Your task to perform on an android device: delete browsing data in the chrome app Image 0: 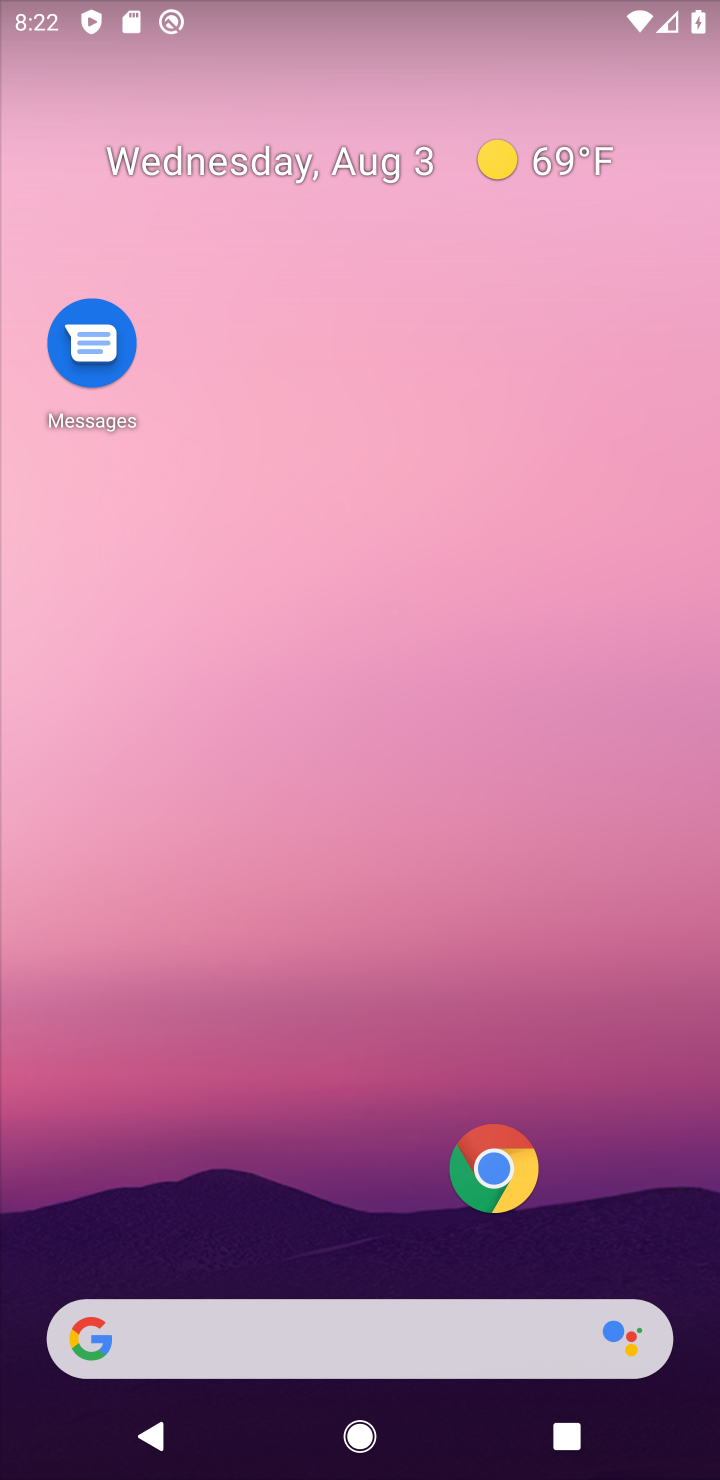
Step 0: drag from (415, 1271) to (395, 33)
Your task to perform on an android device: delete browsing data in the chrome app Image 1: 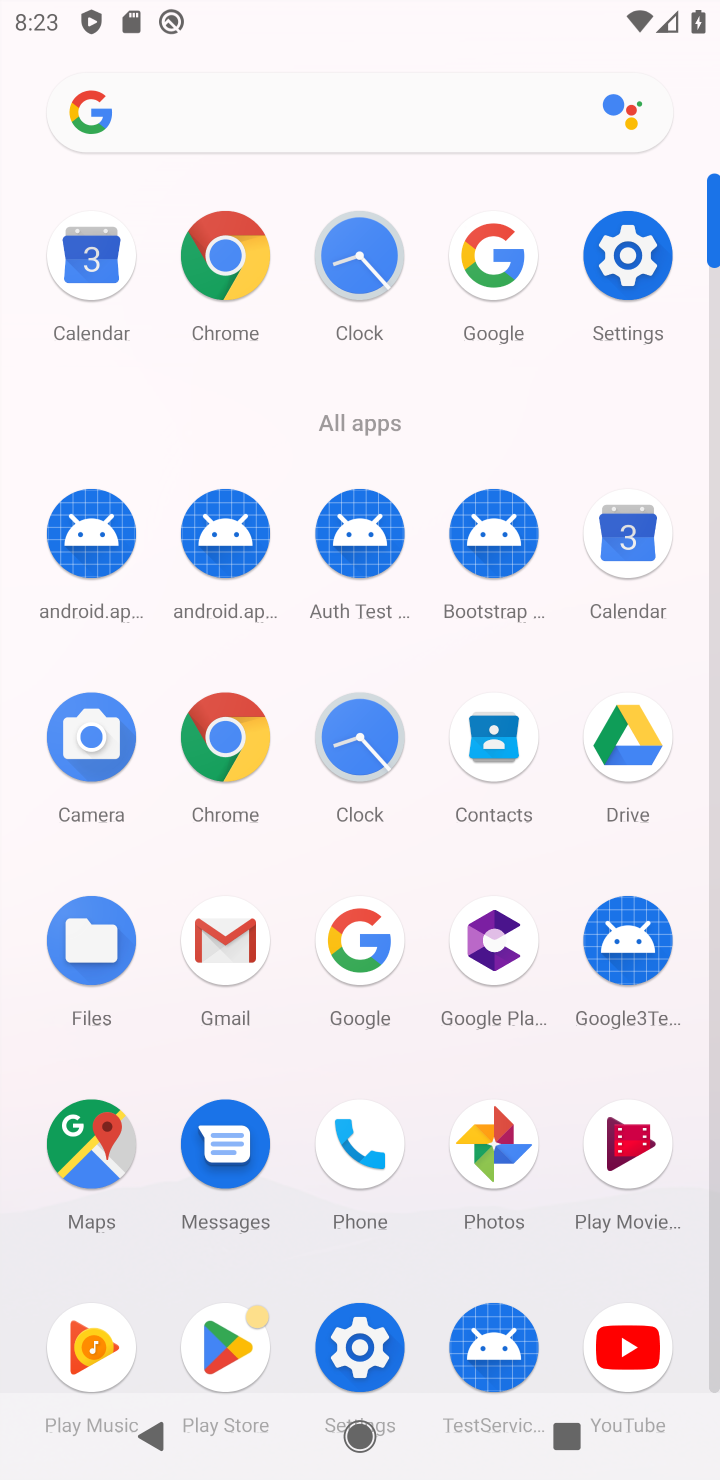
Step 1: click (234, 745)
Your task to perform on an android device: delete browsing data in the chrome app Image 2: 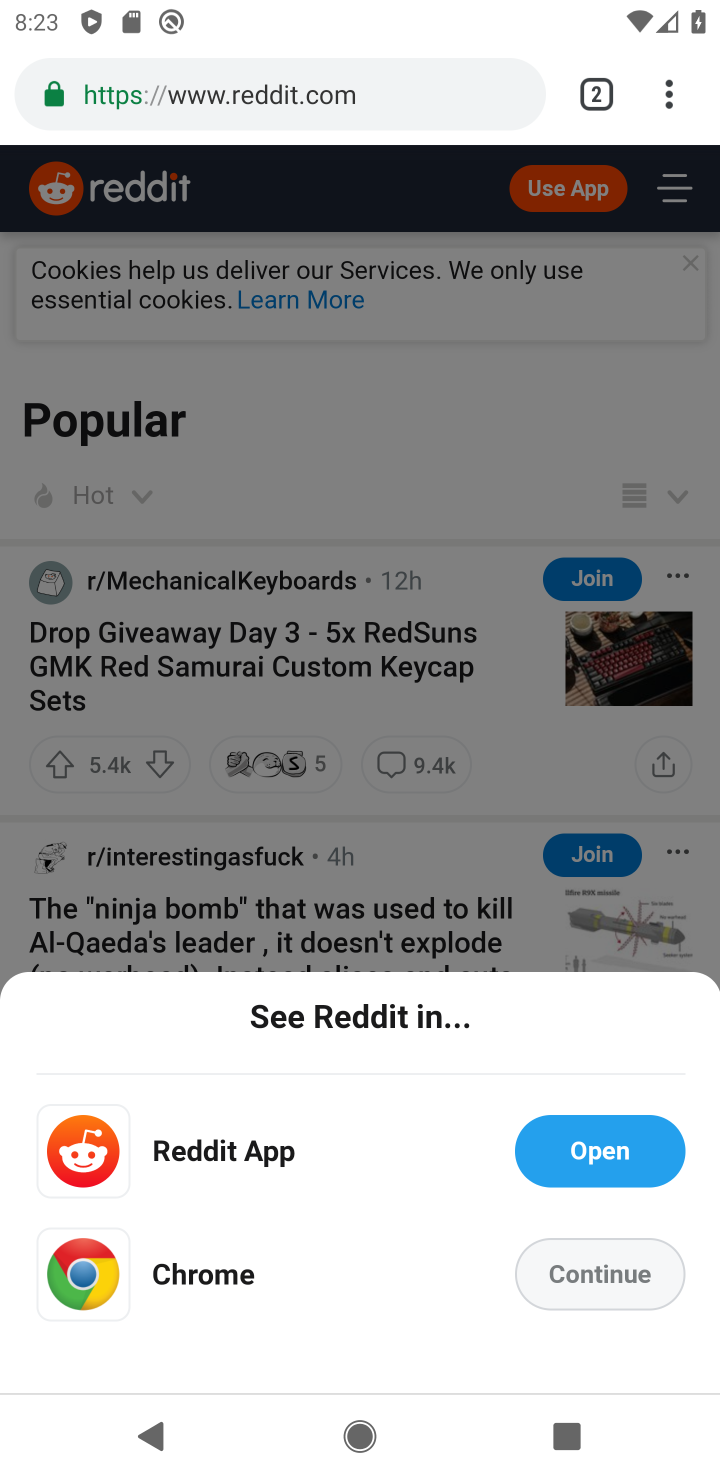
Step 2: click (579, 1267)
Your task to perform on an android device: delete browsing data in the chrome app Image 3: 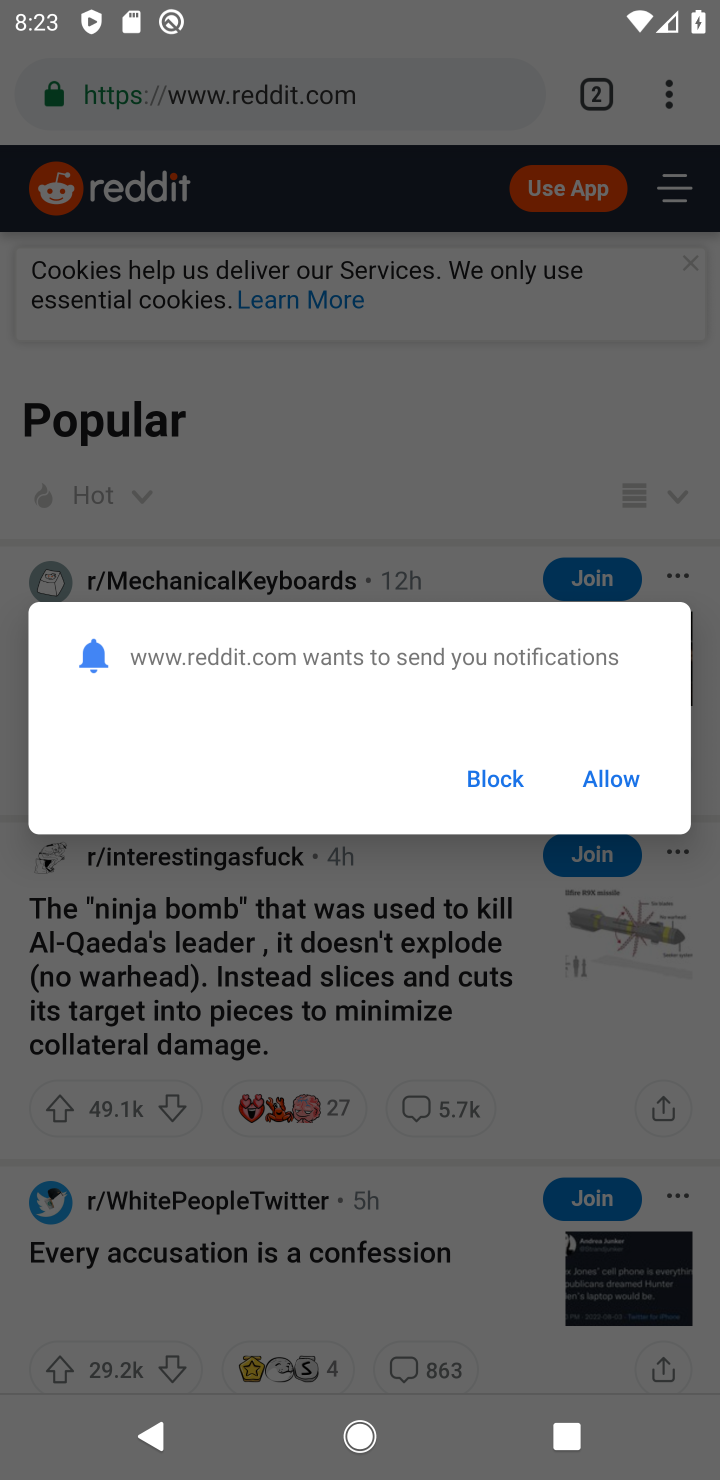
Step 3: click (614, 776)
Your task to perform on an android device: delete browsing data in the chrome app Image 4: 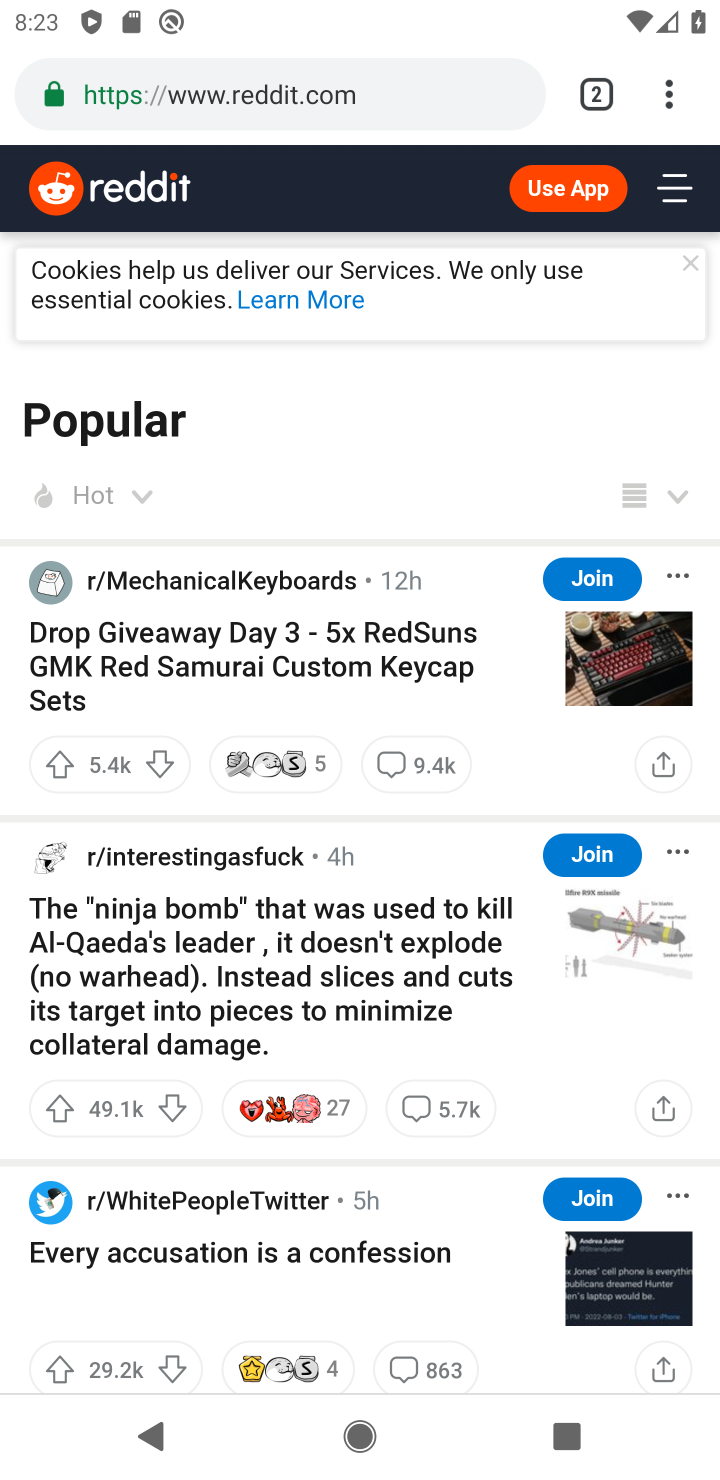
Step 4: drag from (687, 93) to (334, 538)
Your task to perform on an android device: delete browsing data in the chrome app Image 5: 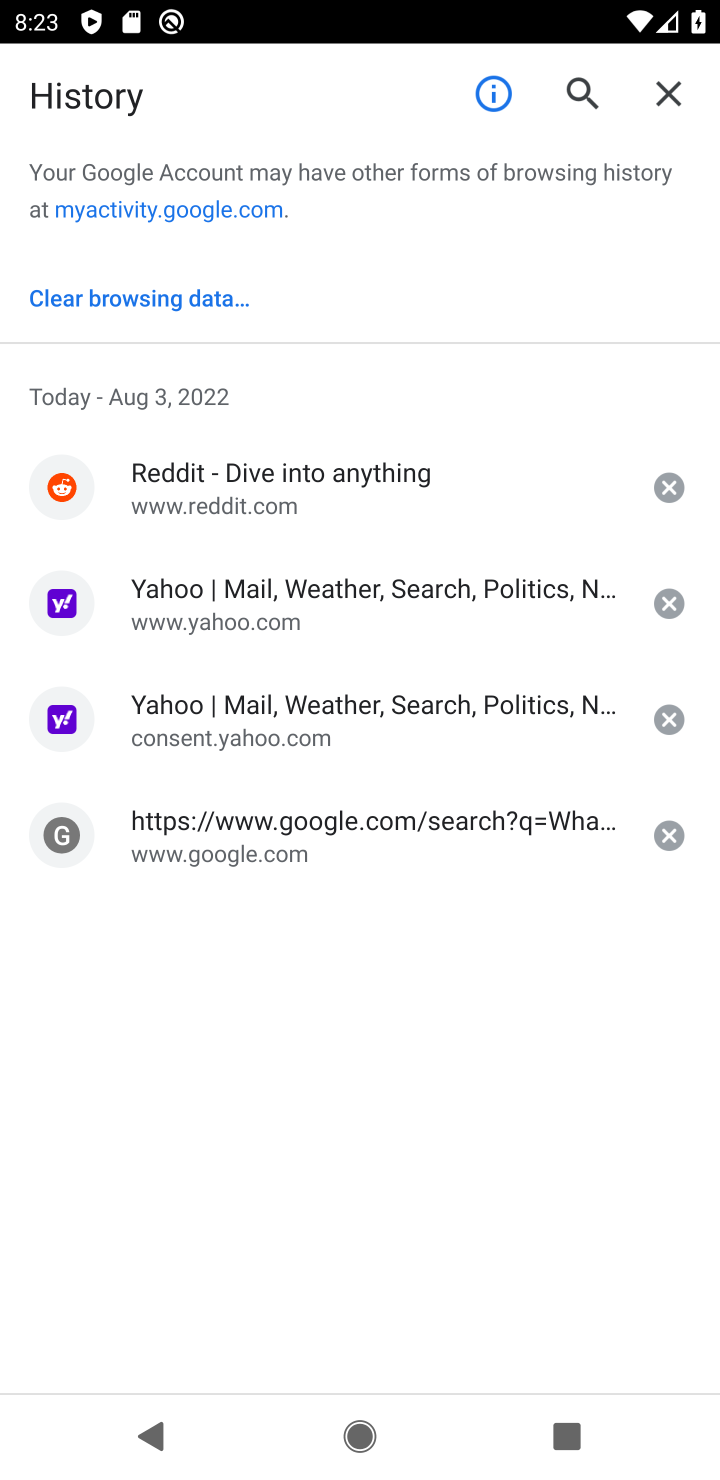
Step 5: click (168, 304)
Your task to perform on an android device: delete browsing data in the chrome app Image 6: 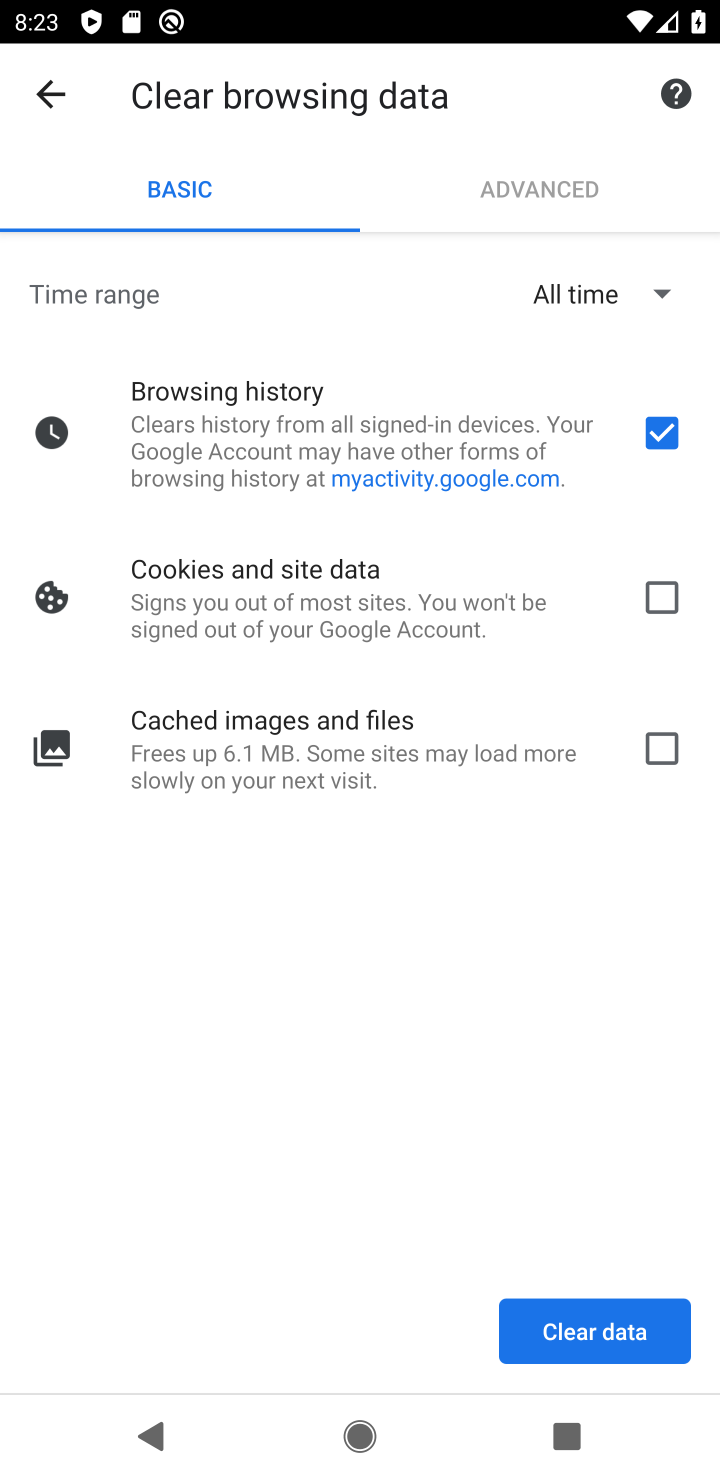
Step 6: click (645, 583)
Your task to perform on an android device: delete browsing data in the chrome app Image 7: 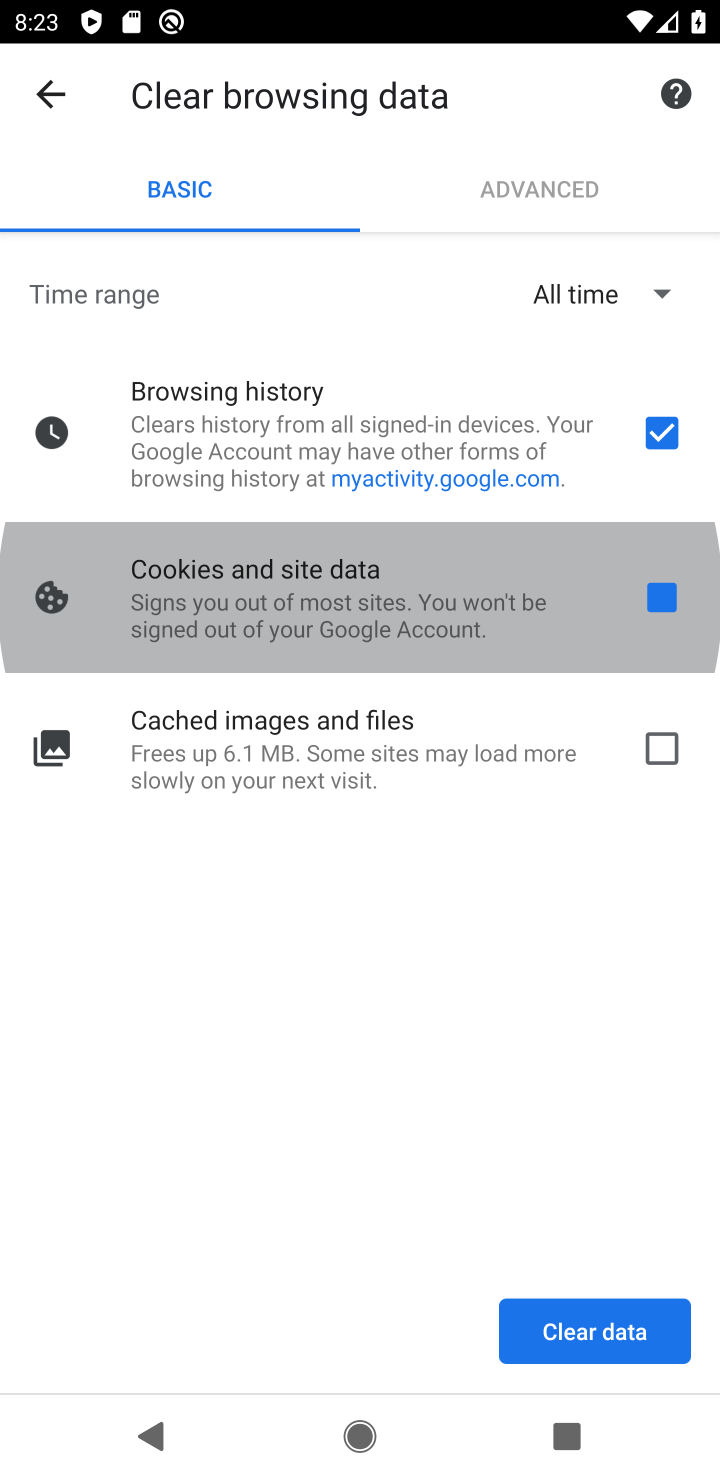
Step 7: click (660, 756)
Your task to perform on an android device: delete browsing data in the chrome app Image 8: 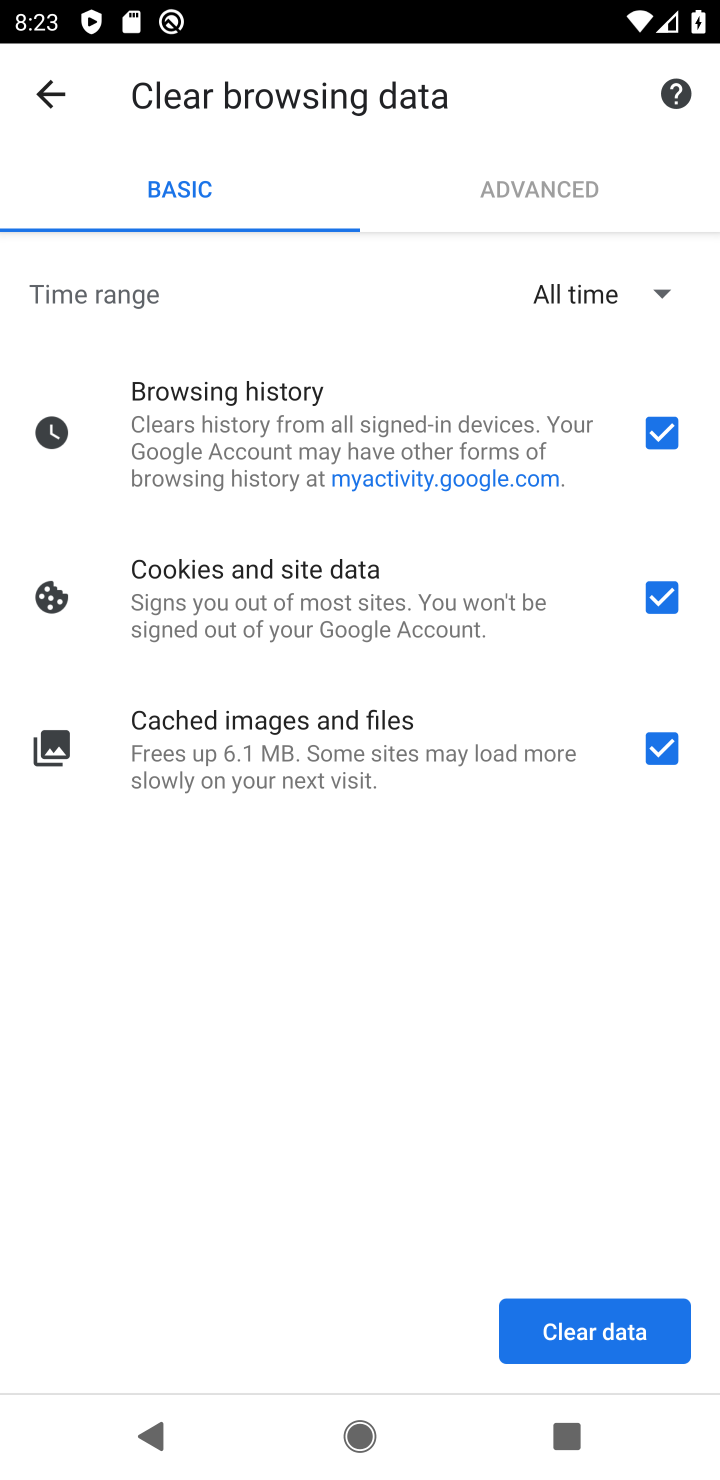
Step 8: click (628, 1326)
Your task to perform on an android device: delete browsing data in the chrome app Image 9: 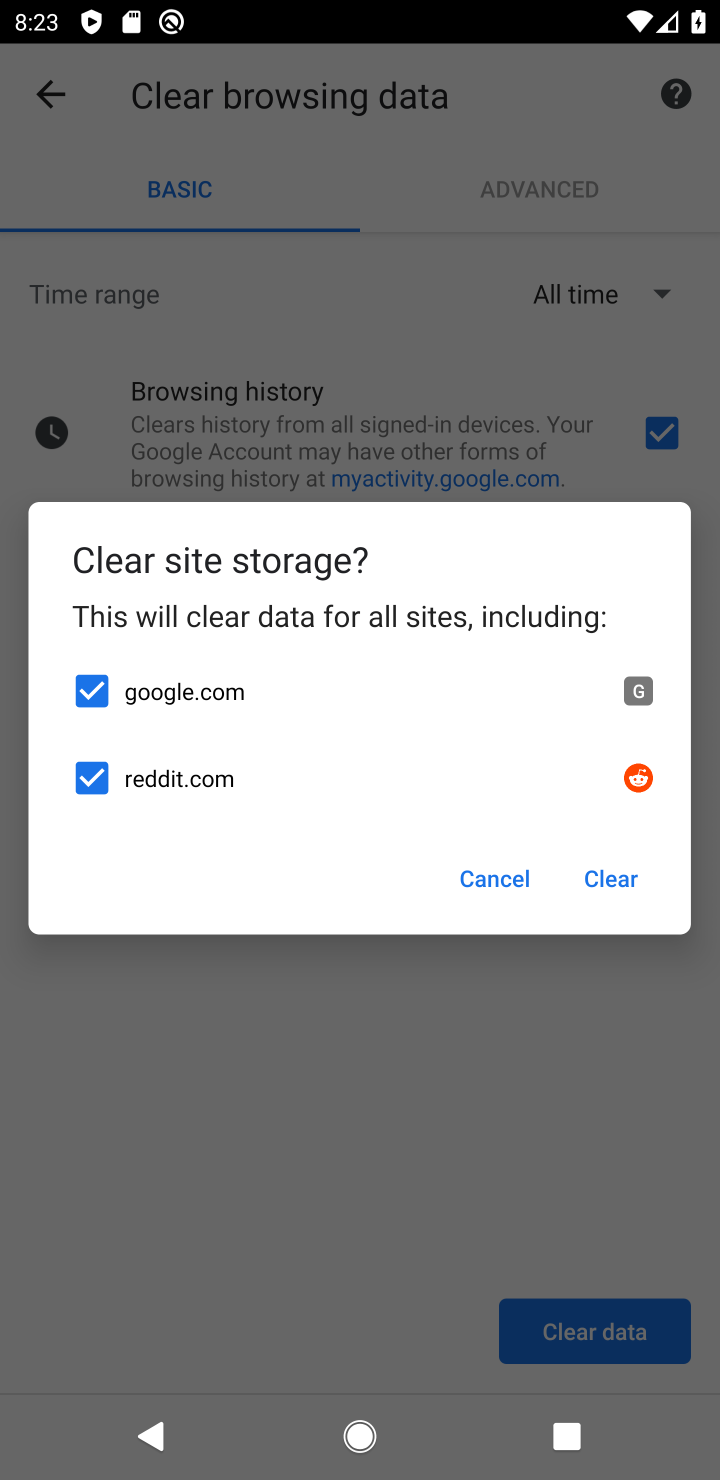
Step 9: click (596, 873)
Your task to perform on an android device: delete browsing data in the chrome app Image 10: 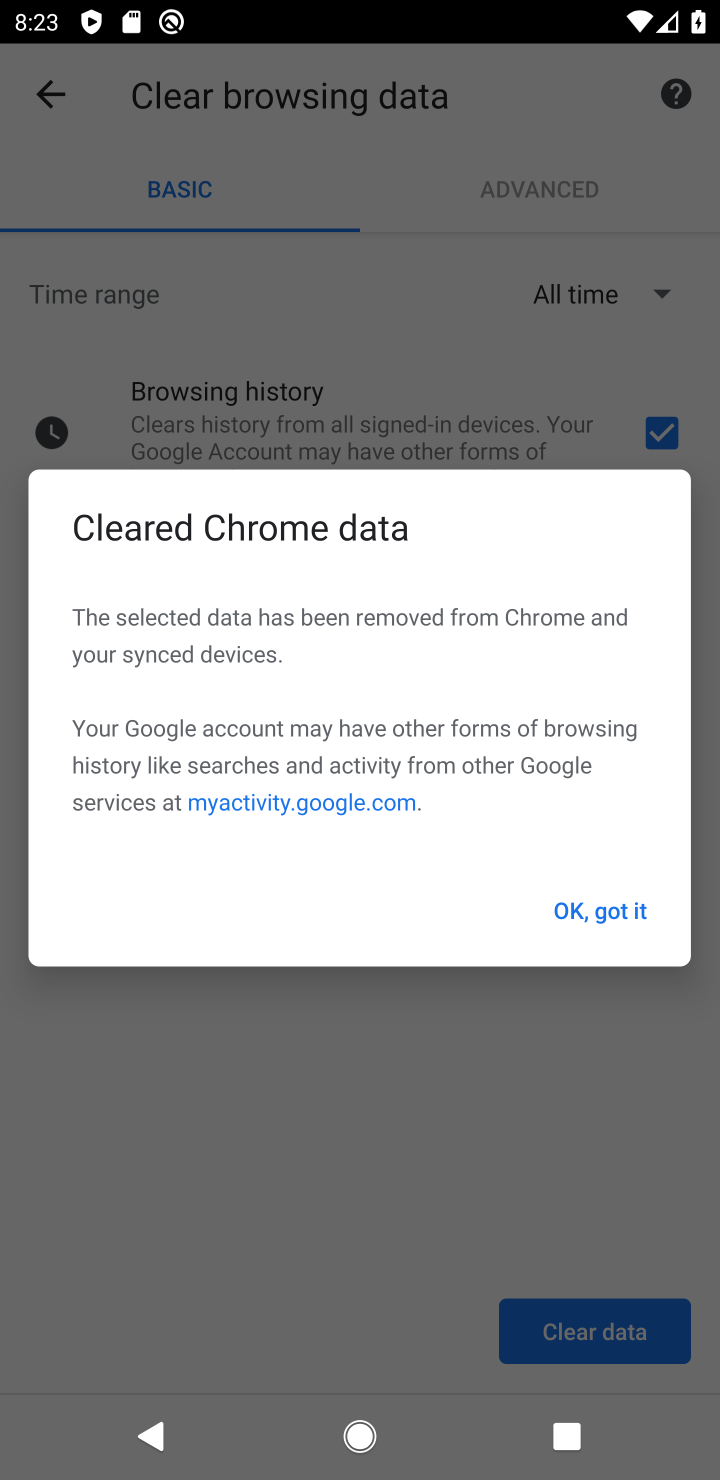
Step 10: click (612, 922)
Your task to perform on an android device: delete browsing data in the chrome app Image 11: 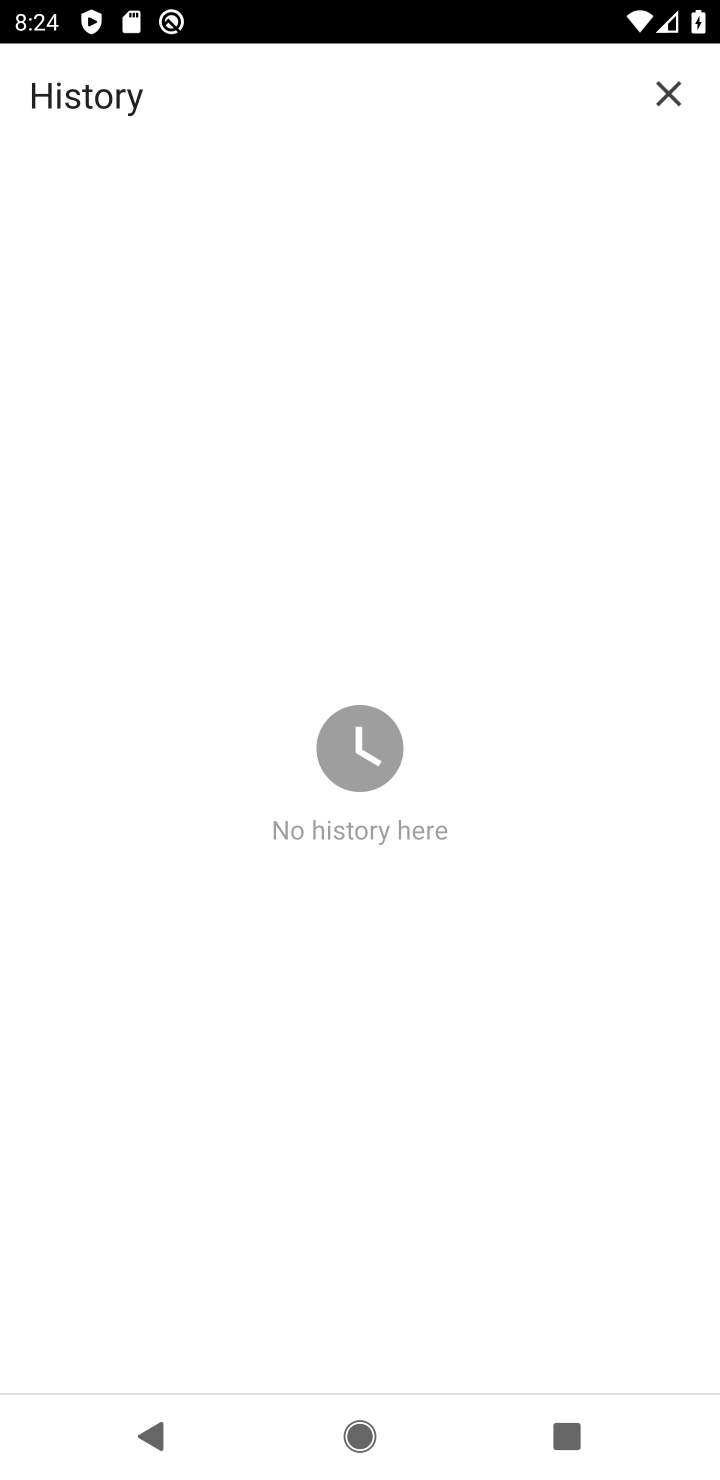
Step 11: task complete